Your task to perform on an android device: manage bookmarks in the chrome app Image 0: 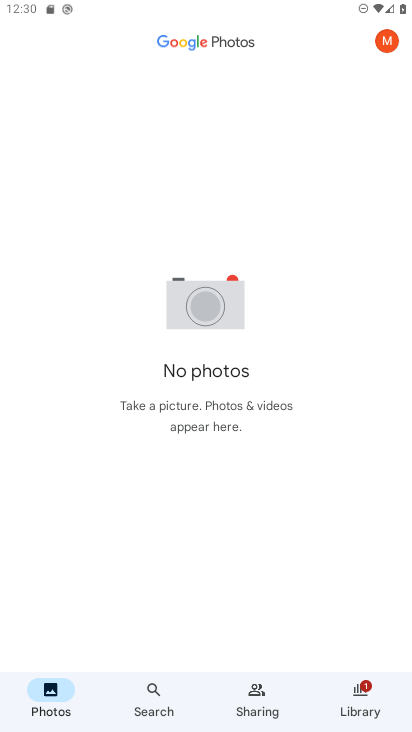
Step 0: press home button
Your task to perform on an android device: manage bookmarks in the chrome app Image 1: 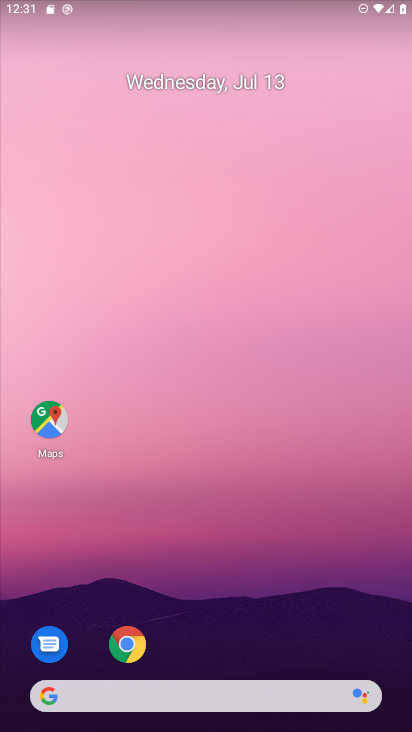
Step 1: drag from (188, 615) to (402, 238)
Your task to perform on an android device: manage bookmarks in the chrome app Image 2: 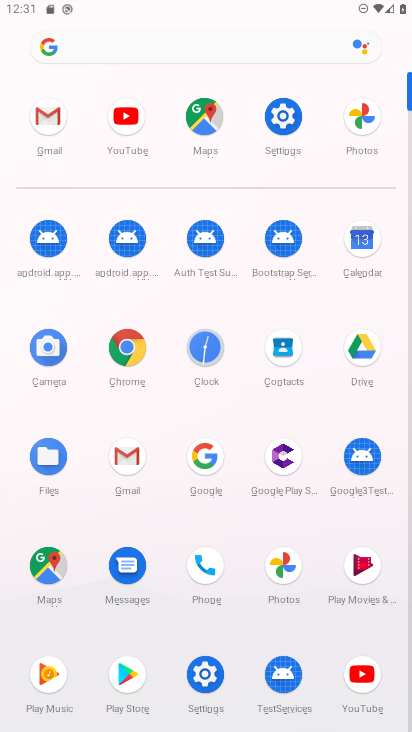
Step 2: click (127, 350)
Your task to perform on an android device: manage bookmarks in the chrome app Image 3: 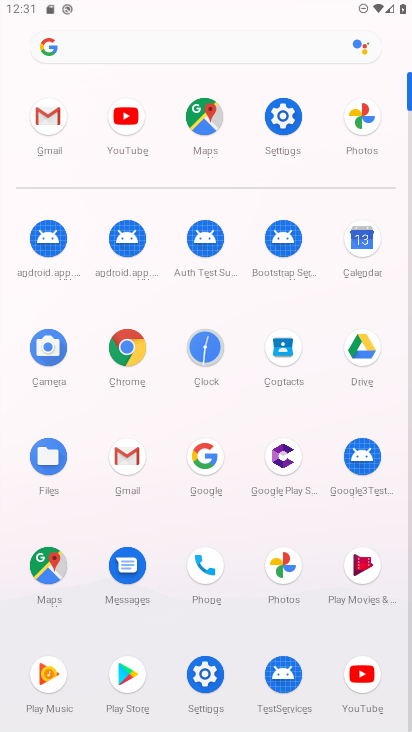
Step 3: click (127, 350)
Your task to perform on an android device: manage bookmarks in the chrome app Image 4: 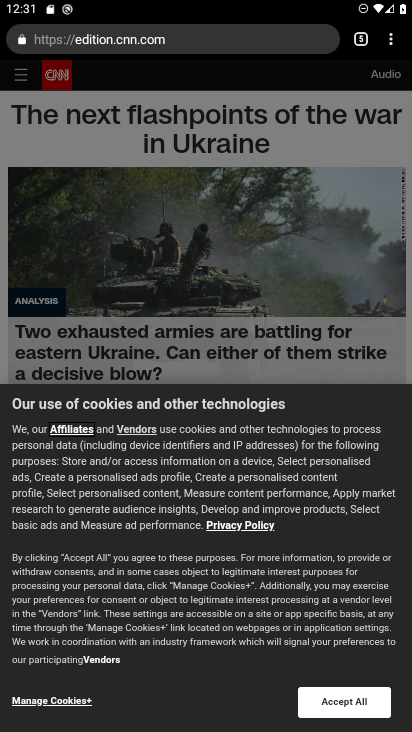
Step 4: click (391, 38)
Your task to perform on an android device: manage bookmarks in the chrome app Image 5: 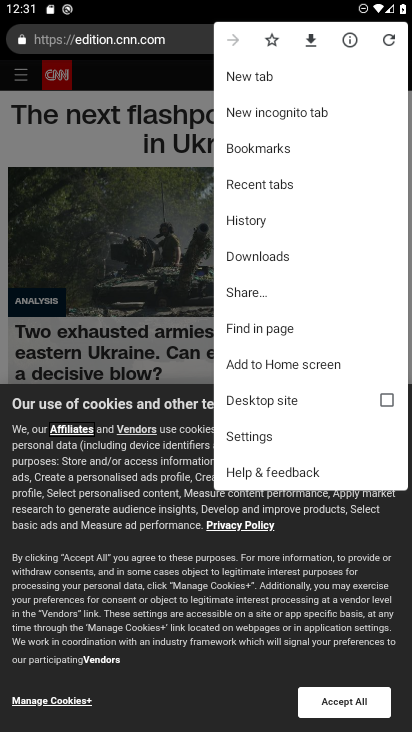
Step 5: click (268, 149)
Your task to perform on an android device: manage bookmarks in the chrome app Image 6: 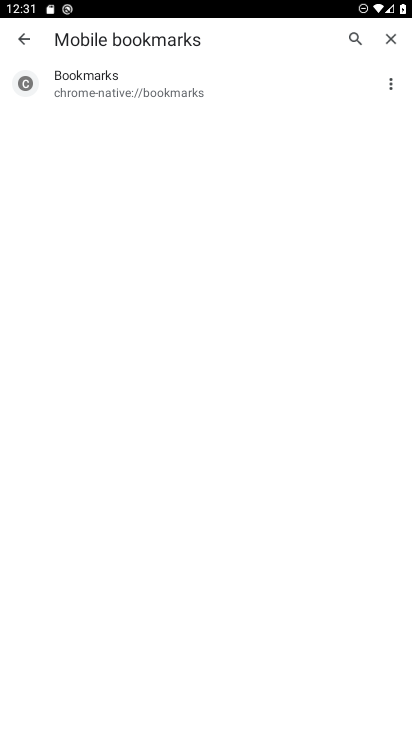
Step 6: click (389, 82)
Your task to perform on an android device: manage bookmarks in the chrome app Image 7: 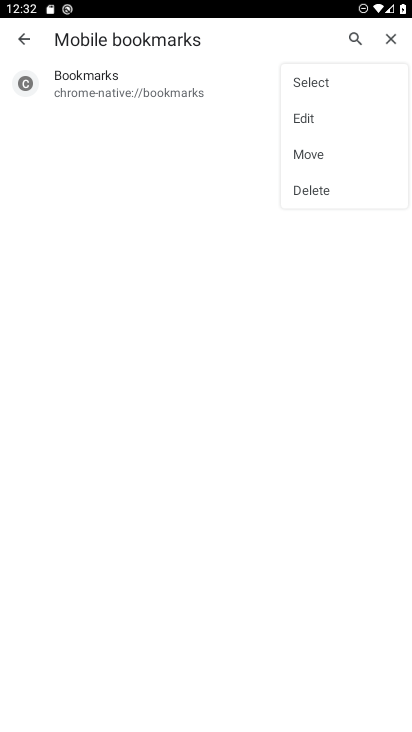
Step 7: click (324, 187)
Your task to perform on an android device: manage bookmarks in the chrome app Image 8: 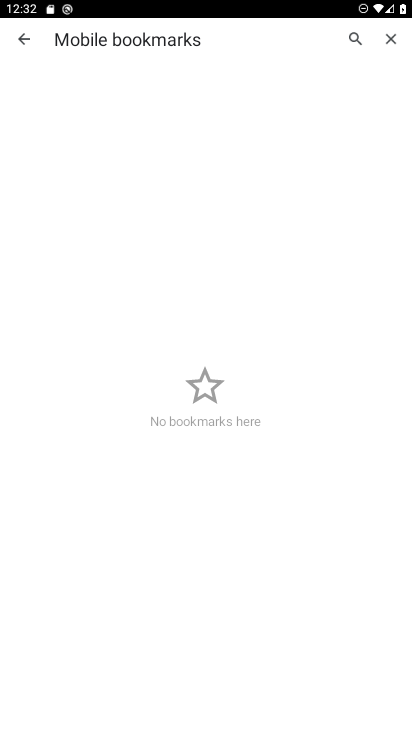
Step 8: task complete